Your task to perform on an android device: add a contact Image 0: 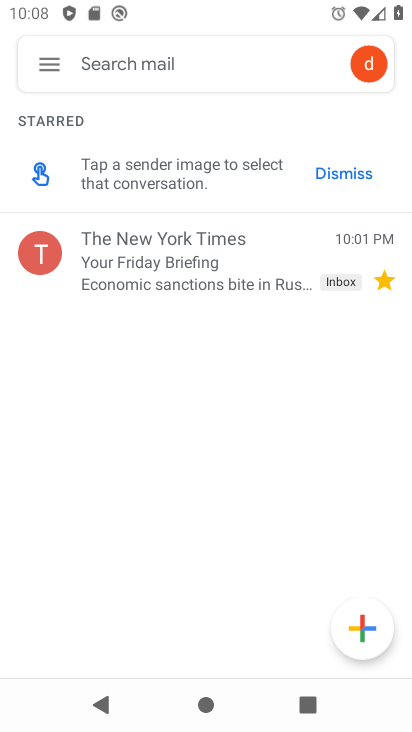
Step 0: press home button
Your task to perform on an android device: add a contact Image 1: 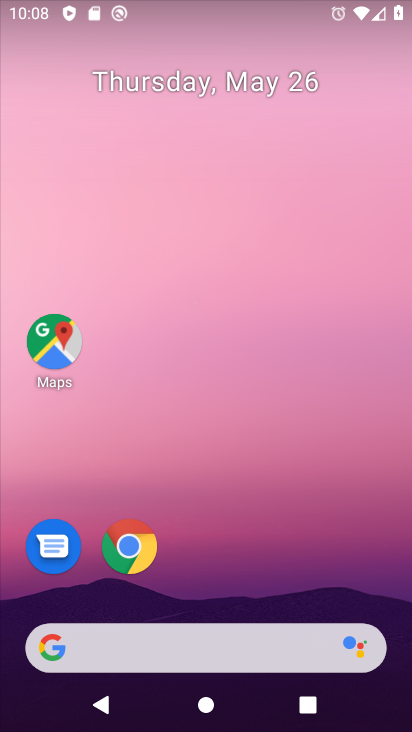
Step 1: drag from (232, 561) to (217, 199)
Your task to perform on an android device: add a contact Image 2: 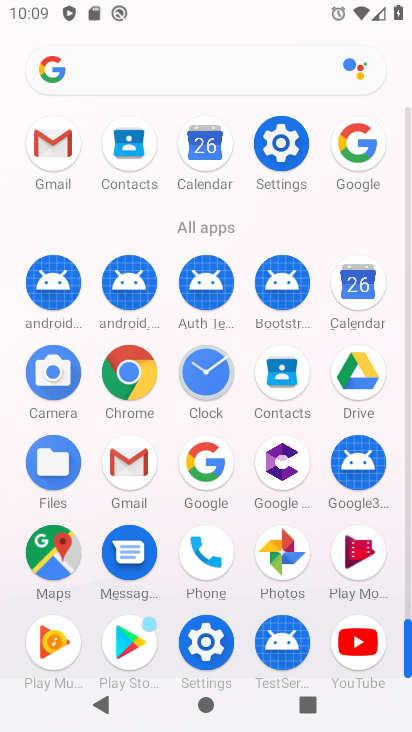
Step 2: click (281, 374)
Your task to perform on an android device: add a contact Image 3: 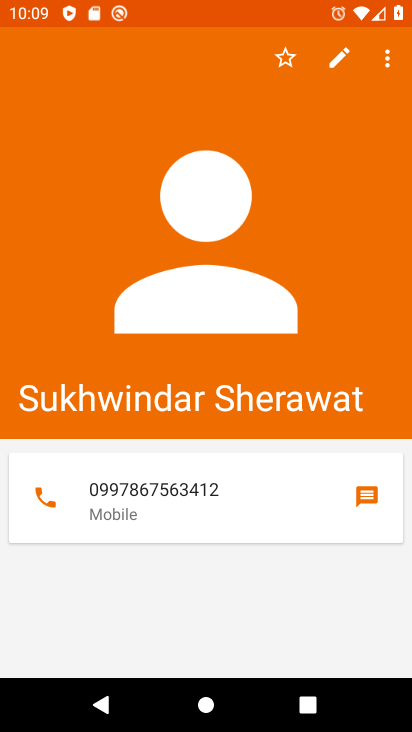
Step 3: press back button
Your task to perform on an android device: add a contact Image 4: 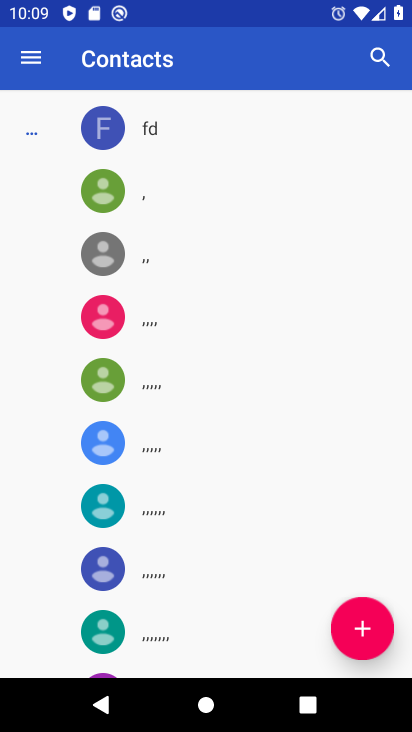
Step 4: click (351, 637)
Your task to perform on an android device: add a contact Image 5: 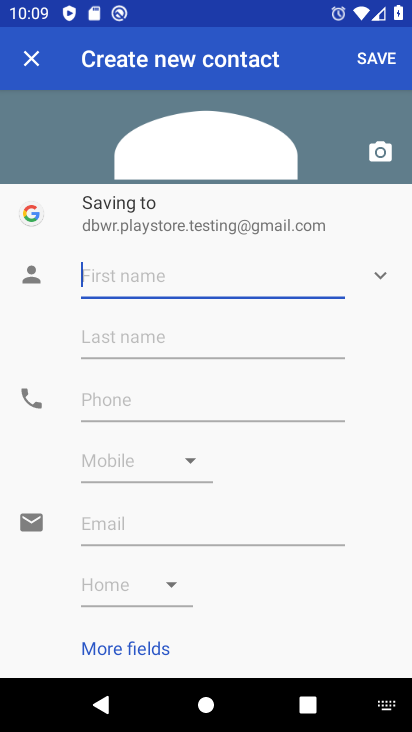
Step 5: type "Kulbhooshan"
Your task to perform on an android device: add a contact Image 6: 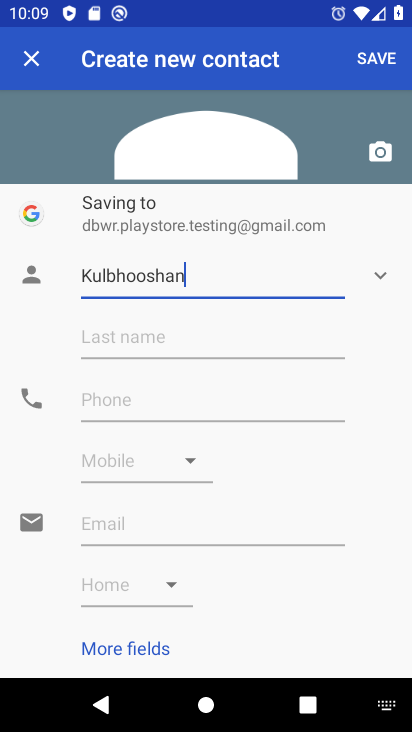
Step 6: click (283, 340)
Your task to perform on an android device: add a contact Image 7: 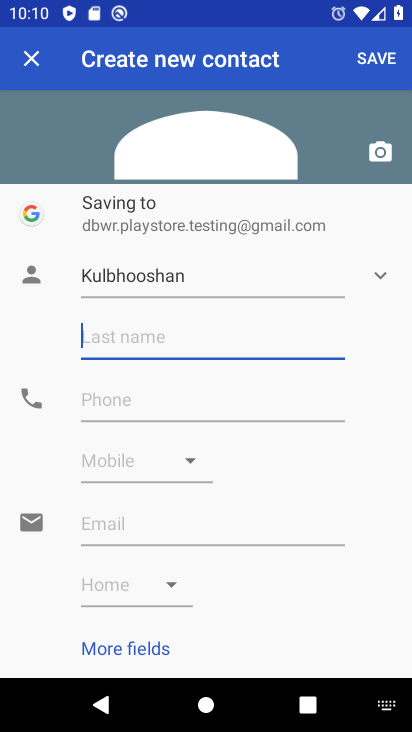
Step 7: type "Upadhyay"
Your task to perform on an android device: add a contact Image 8: 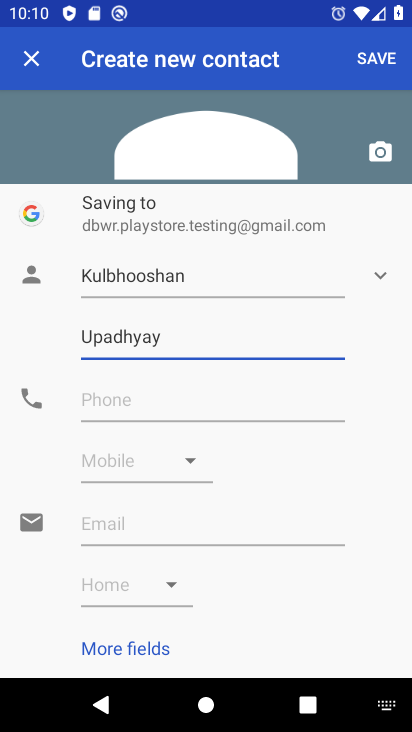
Step 8: click (203, 393)
Your task to perform on an android device: add a contact Image 9: 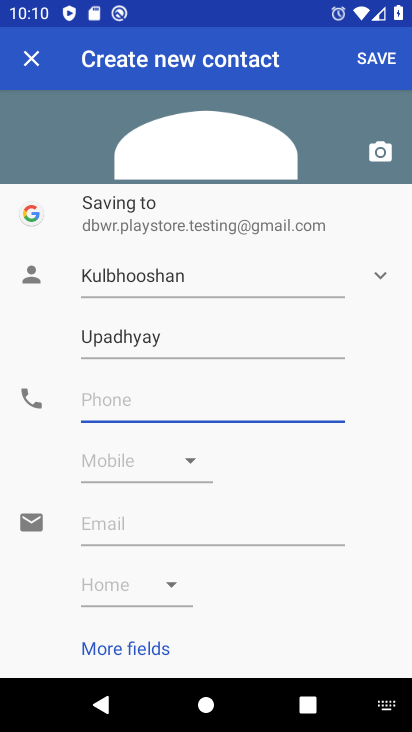
Step 9: type "09876543234"
Your task to perform on an android device: add a contact Image 10: 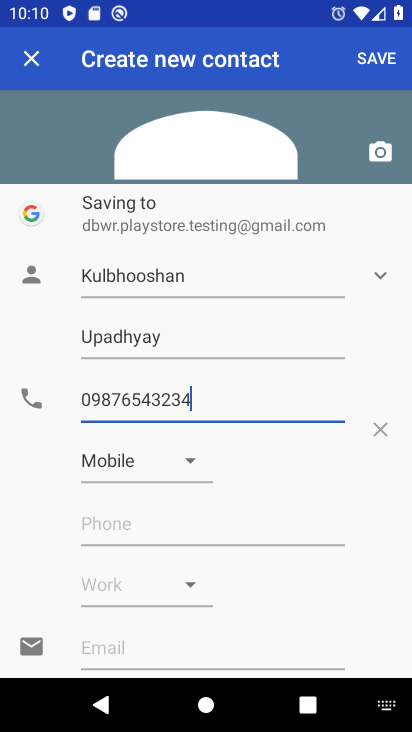
Step 10: click (372, 56)
Your task to perform on an android device: add a contact Image 11: 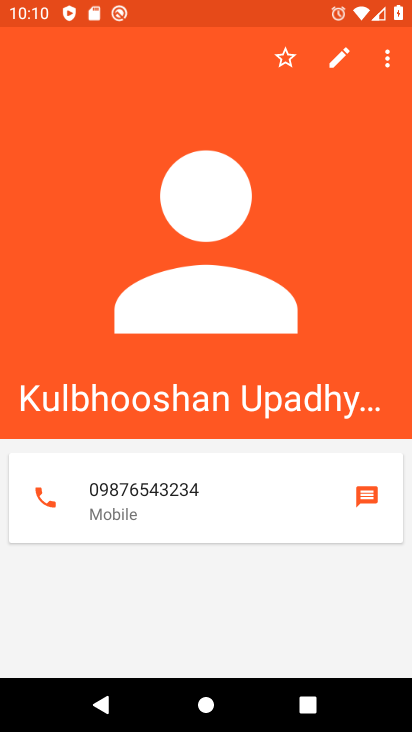
Step 11: task complete